Your task to perform on an android device: turn on data saver in the chrome app Image 0: 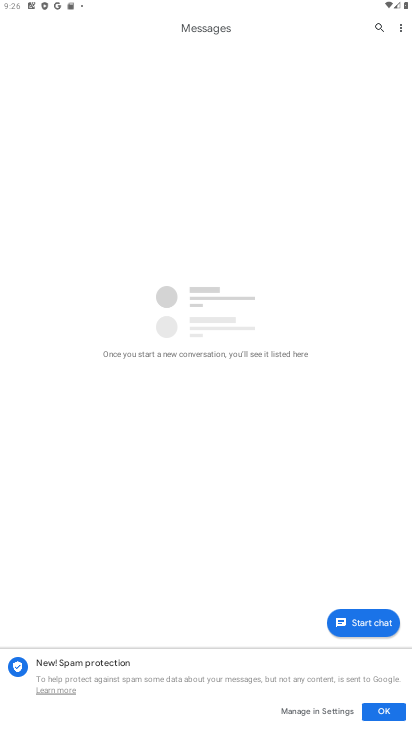
Step 0: task complete